Your task to perform on an android device: Go to ESPN.com Image 0: 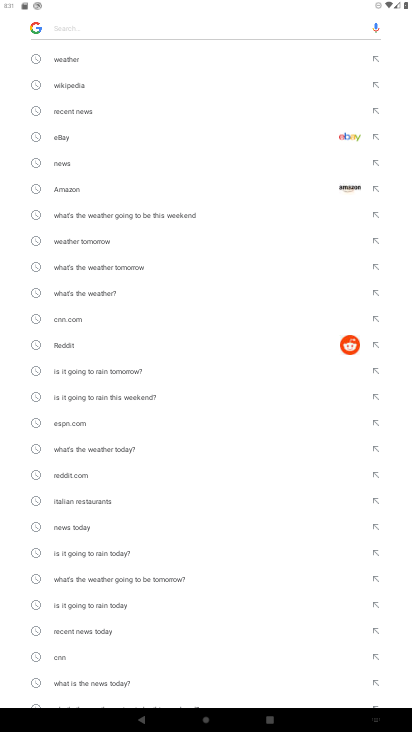
Step 0: press home button
Your task to perform on an android device: Go to ESPN.com Image 1: 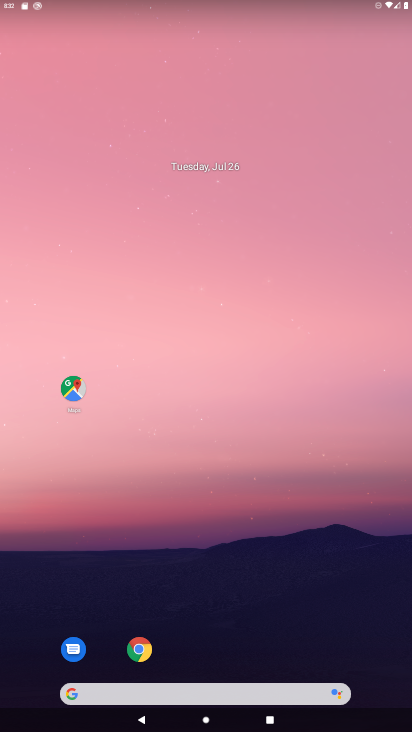
Step 1: click (144, 643)
Your task to perform on an android device: Go to ESPN.com Image 2: 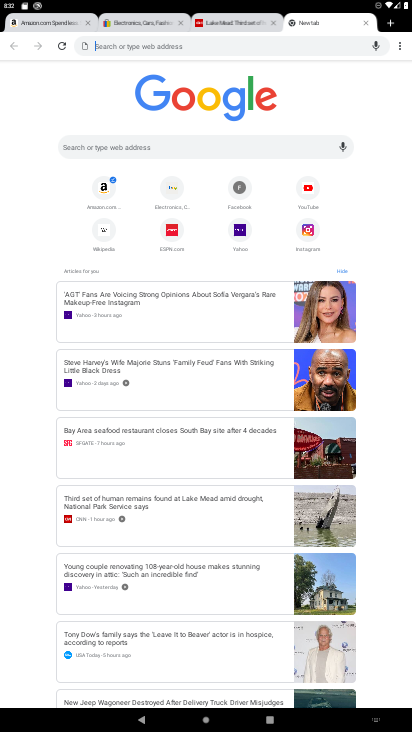
Step 2: click (169, 241)
Your task to perform on an android device: Go to ESPN.com Image 3: 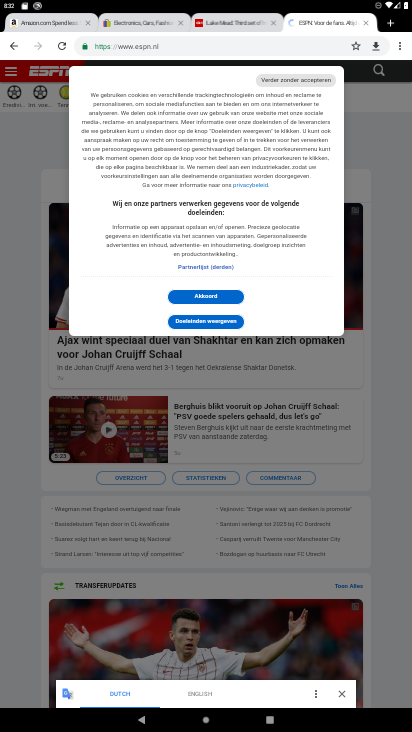
Step 3: task complete